Your task to perform on an android device: Open Google Chrome Image 0: 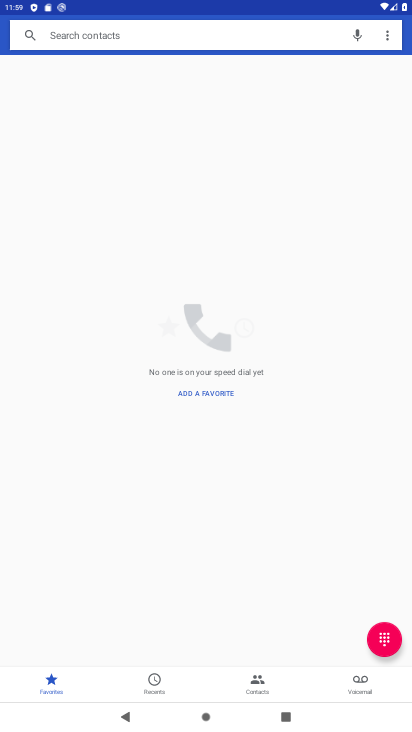
Step 0: press home button
Your task to perform on an android device: Open Google Chrome Image 1: 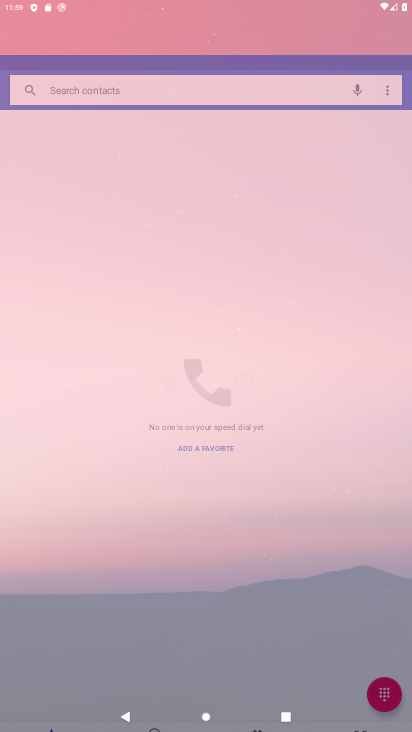
Step 1: drag from (129, 592) to (154, 241)
Your task to perform on an android device: Open Google Chrome Image 2: 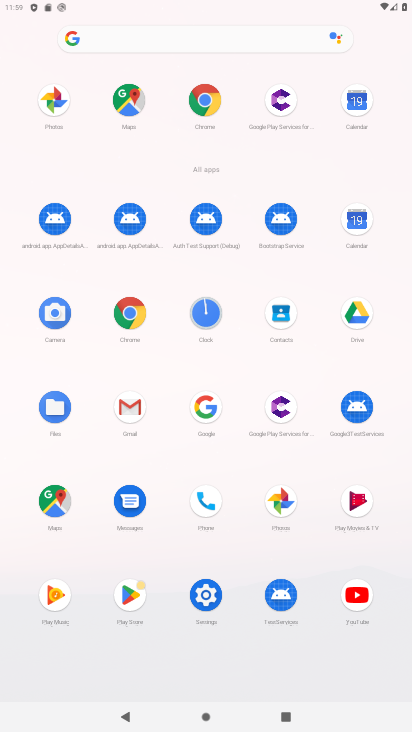
Step 2: click (137, 312)
Your task to perform on an android device: Open Google Chrome Image 3: 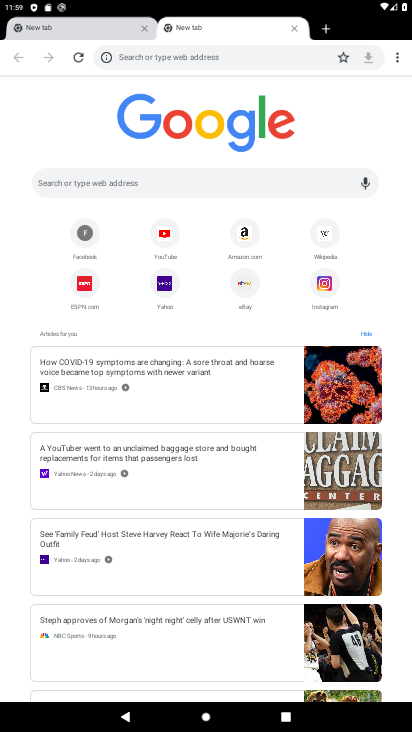
Step 3: task complete